Your task to perform on an android device: Find coffee shops on Maps Image 0: 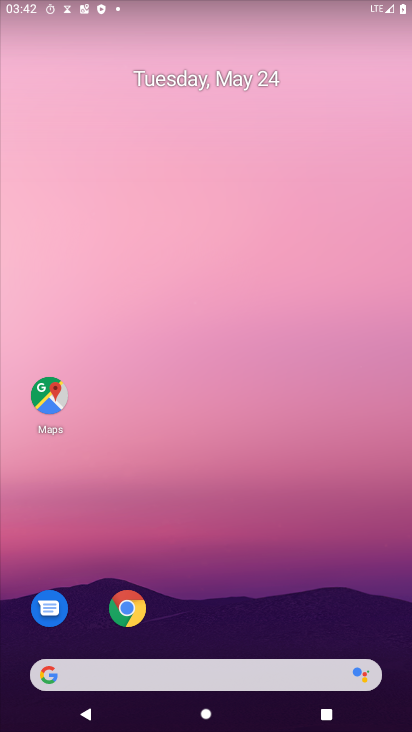
Step 0: click (54, 390)
Your task to perform on an android device: Find coffee shops on Maps Image 1: 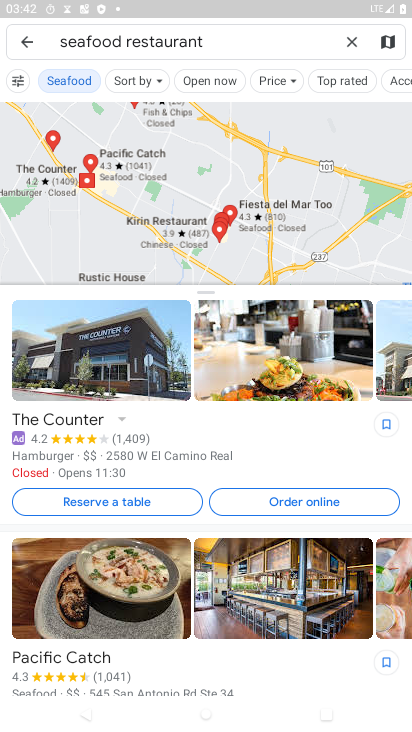
Step 1: click (355, 37)
Your task to perform on an android device: Find coffee shops on Maps Image 2: 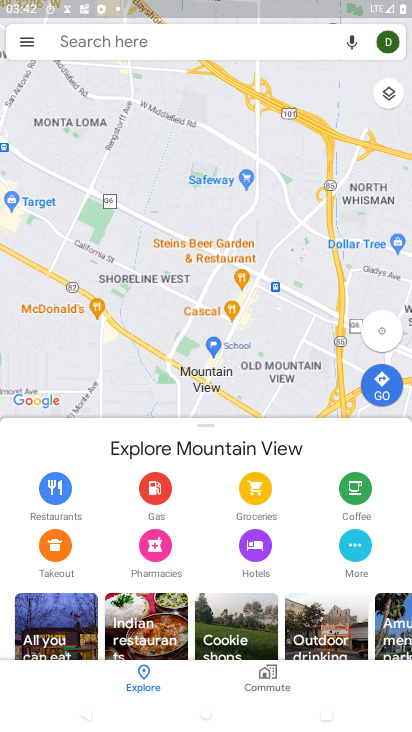
Step 2: click (216, 55)
Your task to perform on an android device: Find coffee shops on Maps Image 3: 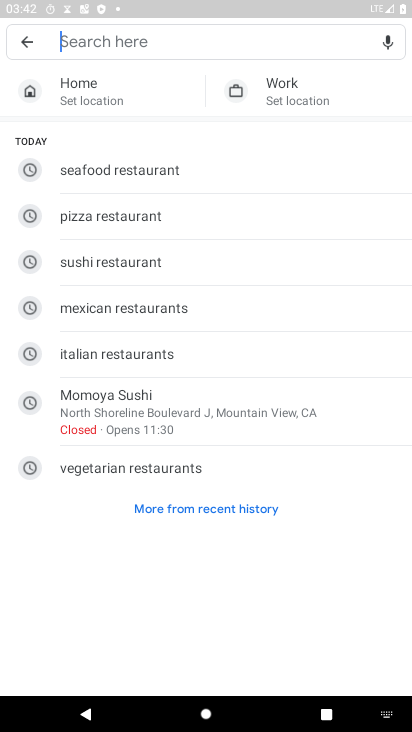
Step 3: click (190, 45)
Your task to perform on an android device: Find coffee shops on Maps Image 4: 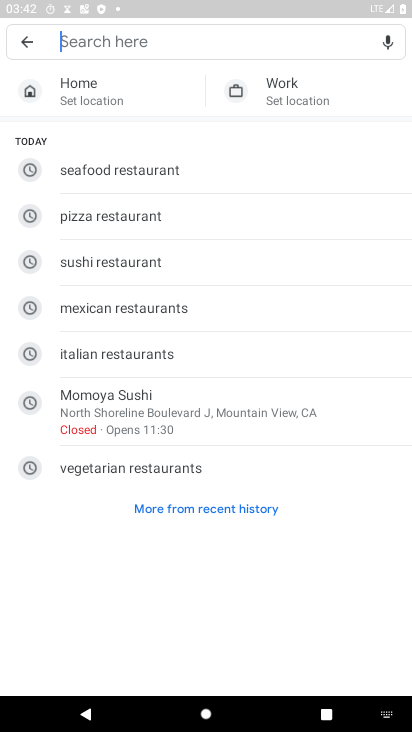
Step 4: type "coffee shops"
Your task to perform on an android device: Find coffee shops on Maps Image 5: 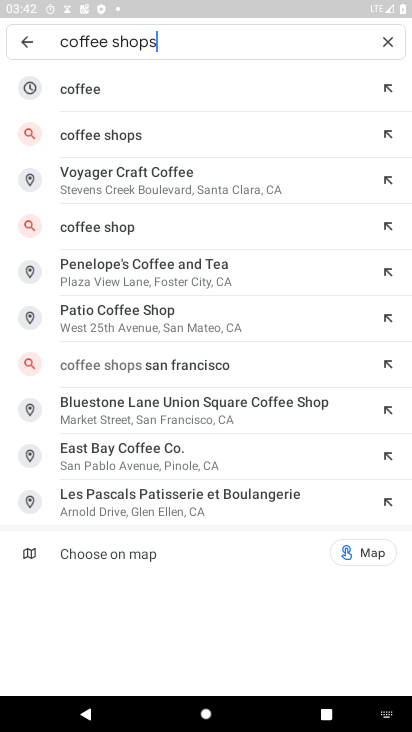
Step 5: click (119, 141)
Your task to perform on an android device: Find coffee shops on Maps Image 6: 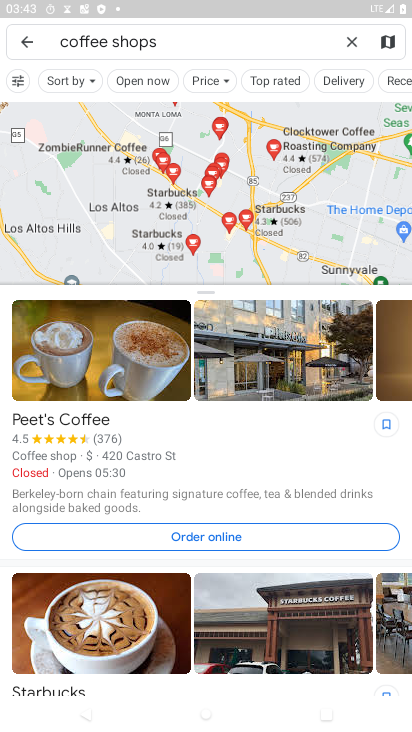
Step 6: task complete